Your task to perform on an android device: Open Reddit.com Image 0: 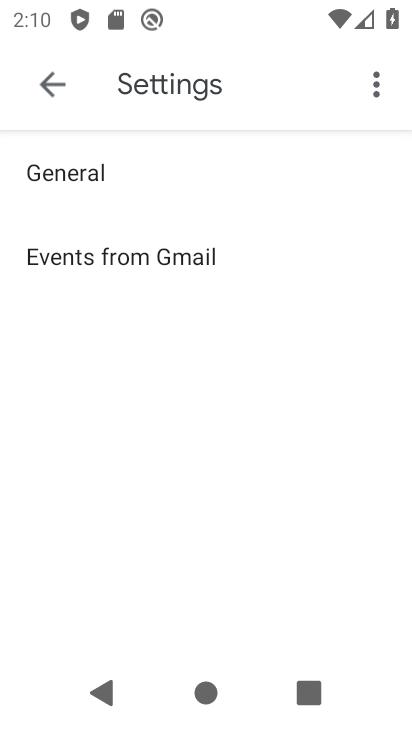
Step 0: press home button
Your task to perform on an android device: Open Reddit.com Image 1: 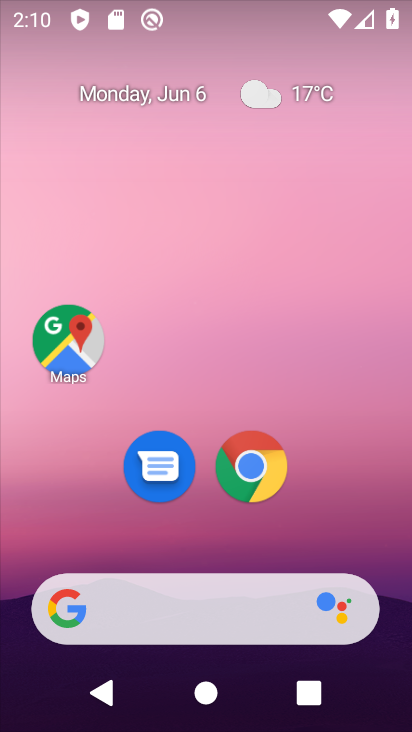
Step 1: click (264, 457)
Your task to perform on an android device: Open Reddit.com Image 2: 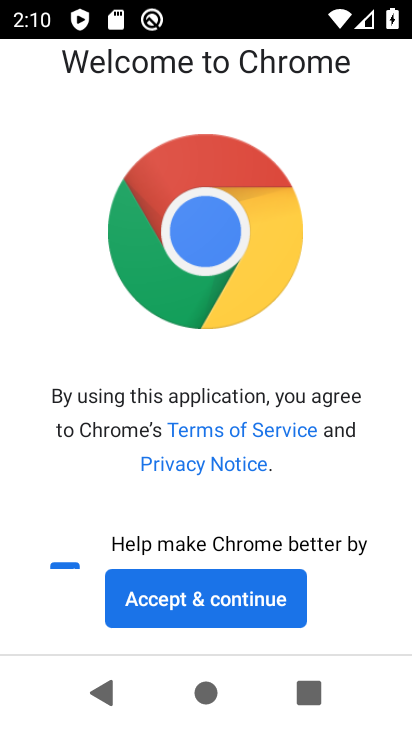
Step 2: click (245, 588)
Your task to perform on an android device: Open Reddit.com Image 3: 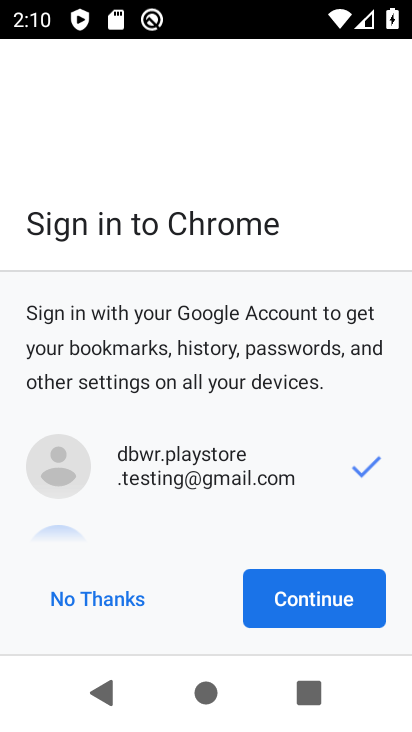
Step 3: click (268, 592)
Your task to perform on an android device: Open Reddit.com Image 4: 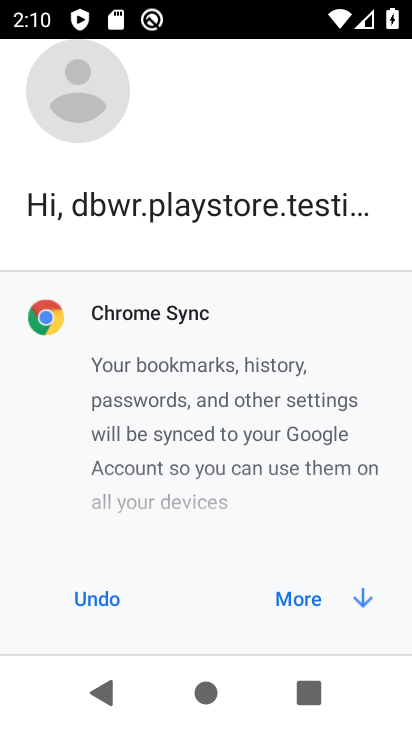
Step 4: click (268, 592)
Your task to perform on an android device: Open Reddit.com Image 5: 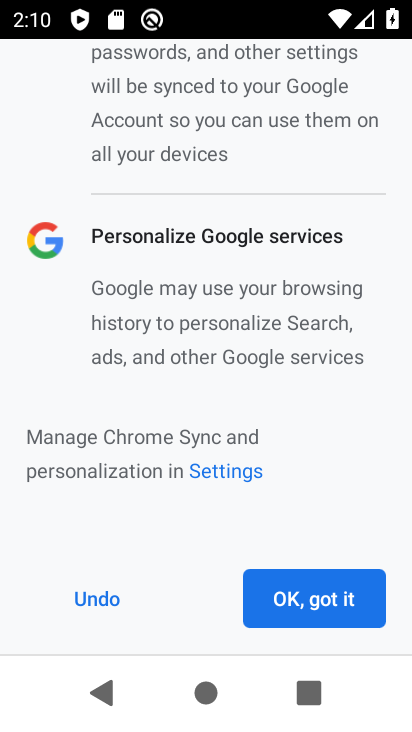
Step 5: click (268, 592)
Your task to perform on an android device: Open Reddit.com Image 6: 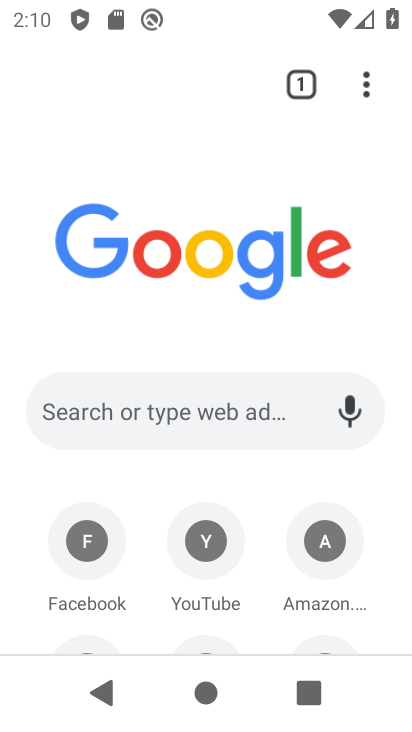
Step 6: click (179, 96)
Your task to perform on an android device: Open Reddit.com Image 7: 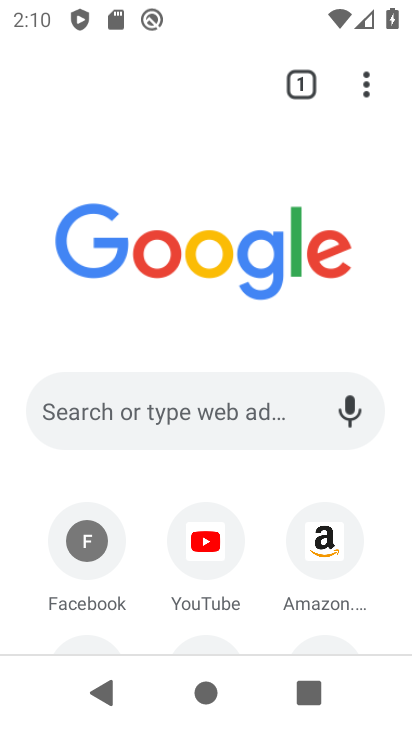
Step 7: click (196, 394)
Your task to perform on an android device: Open Reddit.com Image 8: 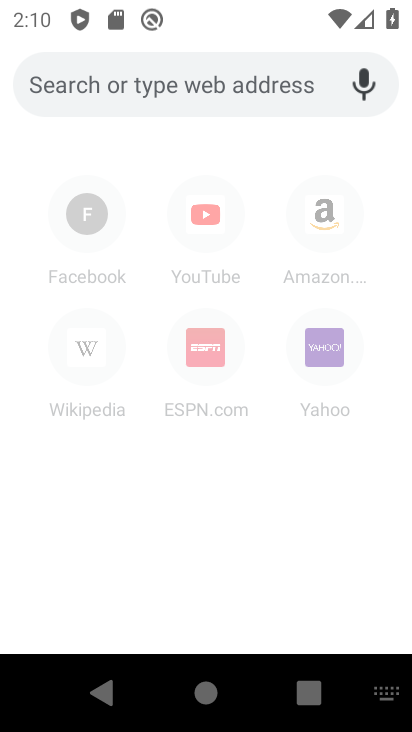
Step 8: type "Reddit.com"
Your task to perform on an android device: Open Reddit.com Image 9: 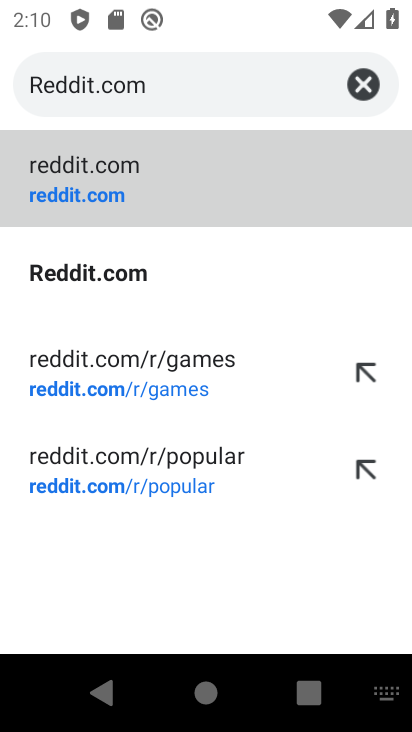
Step 9: click (93, 199)
Your task to perform on an android device: Open Reddit.com Image 10: 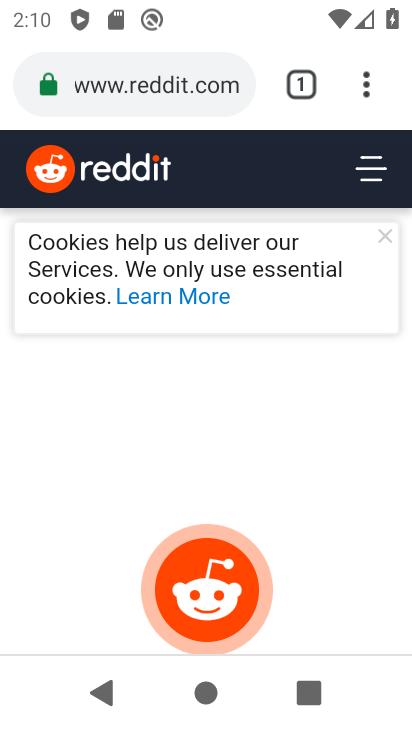
Step 10: task complete